Your task to perform on an android device: Search for a custom made wallet on Etsy Image 0: 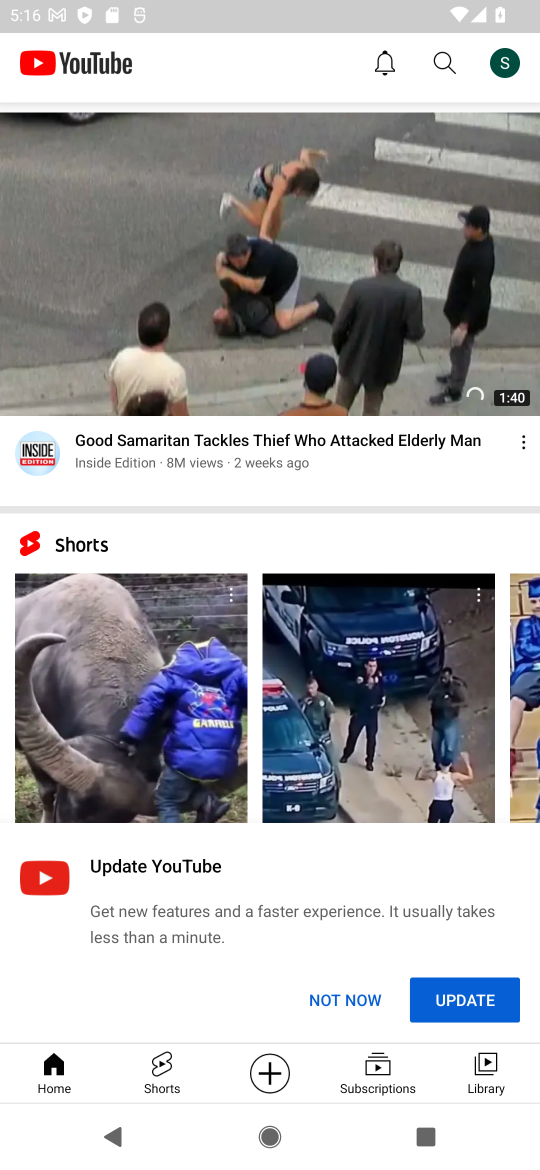
Step 0: press home button
Your task to perform on an android device: Search for a custom made wallet on Etsy Image 1: 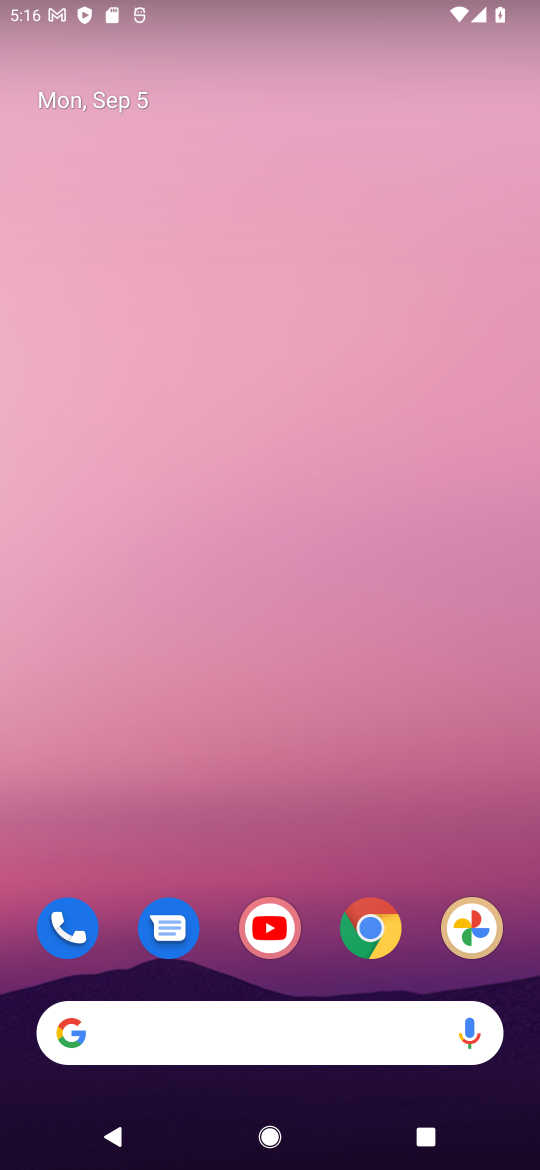
Step 1: click (374, 919)
Your task to perform on an android device: Search for a custom made wallet on Etsy Image 2: 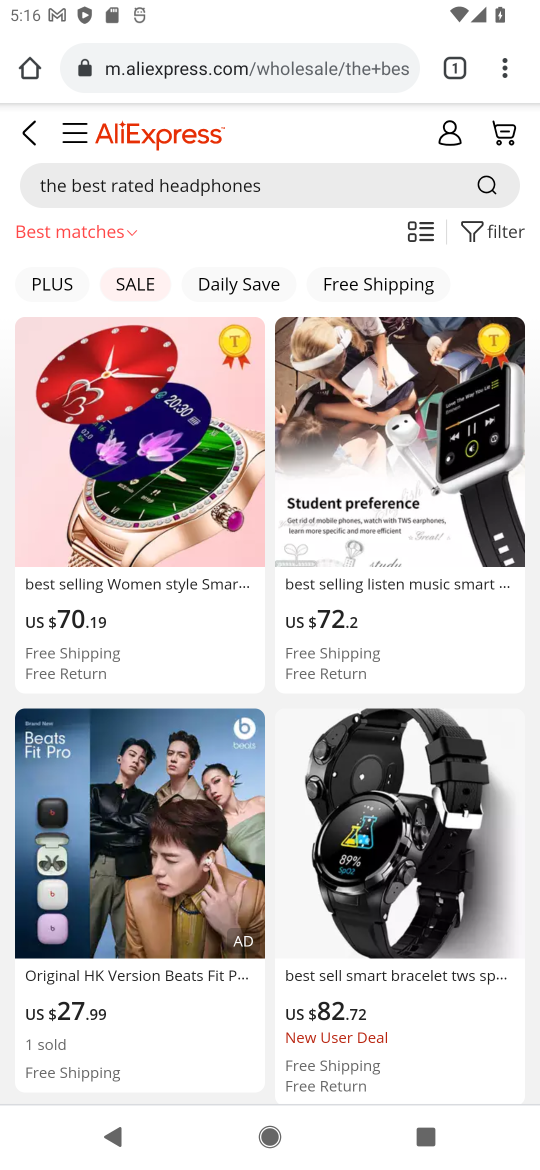
Step 2: click (231, 69)
Your task to perform on an android device: Search for a custom made wallet on Etsy Image 3: 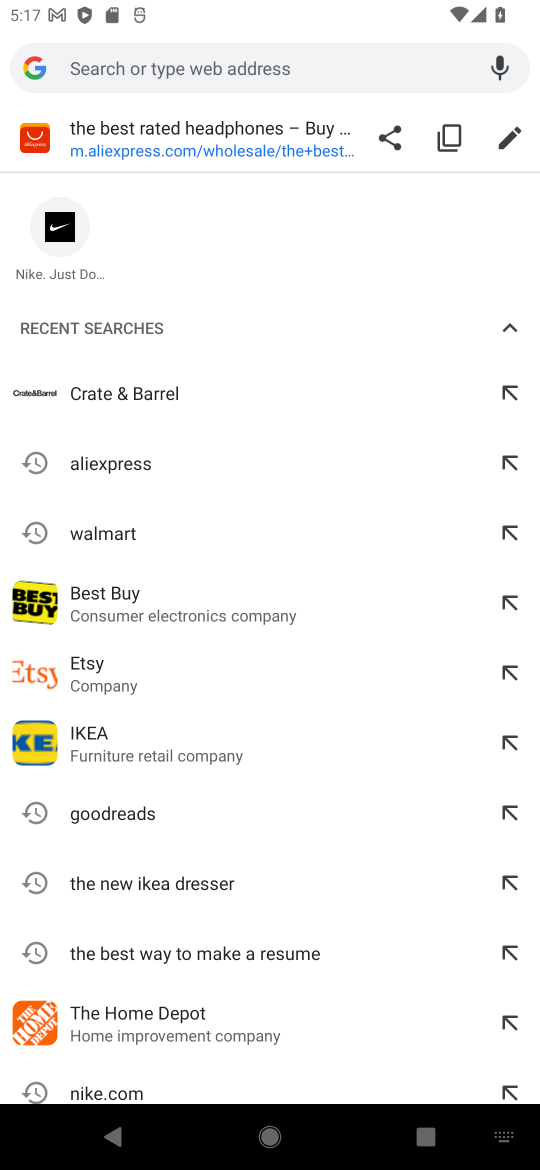
Step 3: type "Etsy"
Your task to perform on an android device: Search for a custom made wallet on Etsy Image 4: 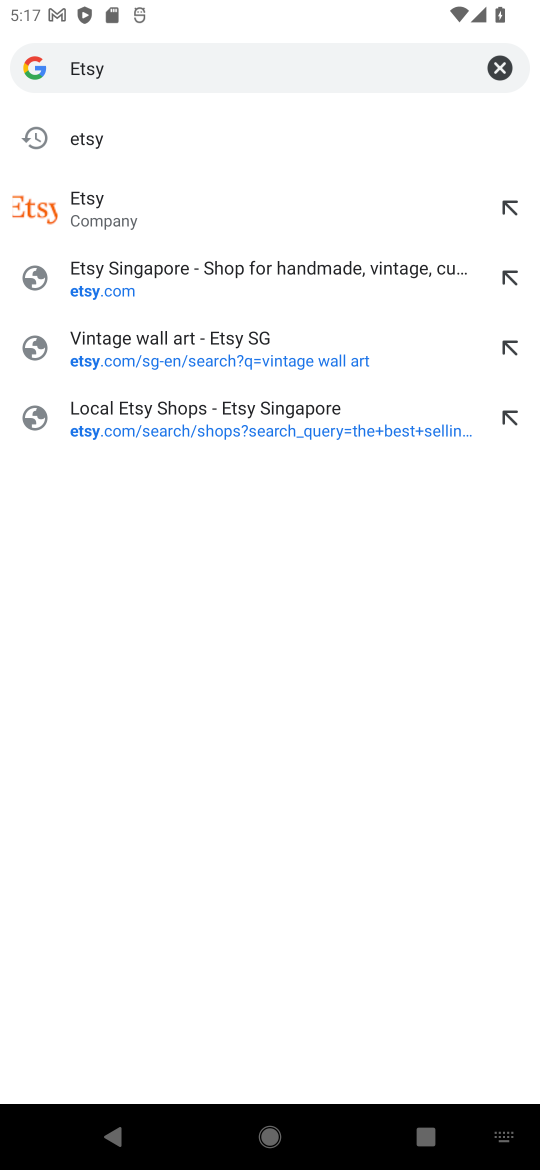
Step 4: click (147, 126)
Your task to perform on an android device: Search for a custom made wallet on Etsy Image 5: 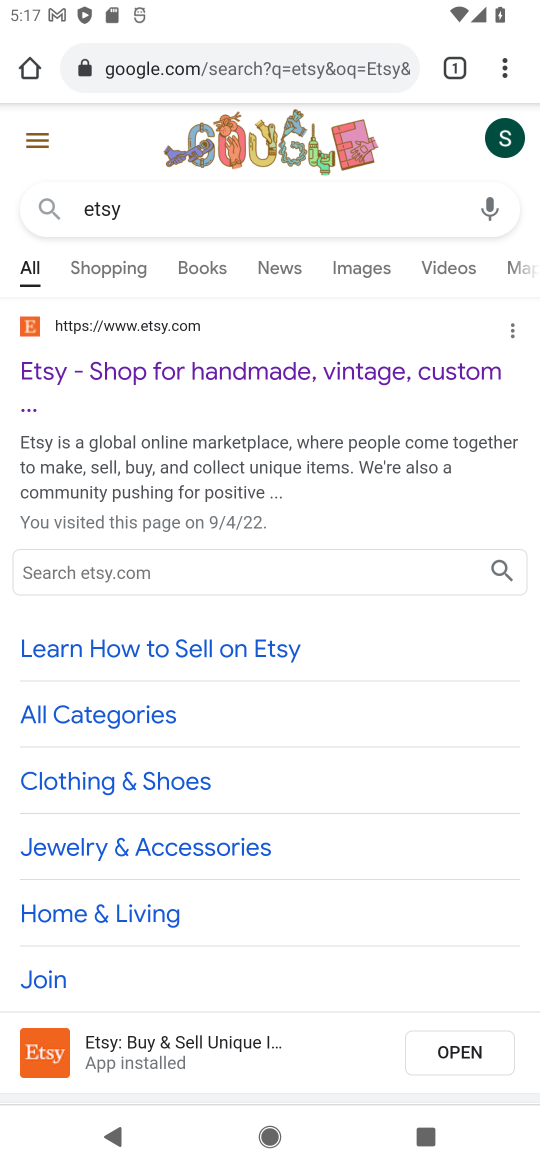
Step 5: click (195, 357)
Your task to perform on an android device: Search for a custom made wallet on Etsy Image 6: 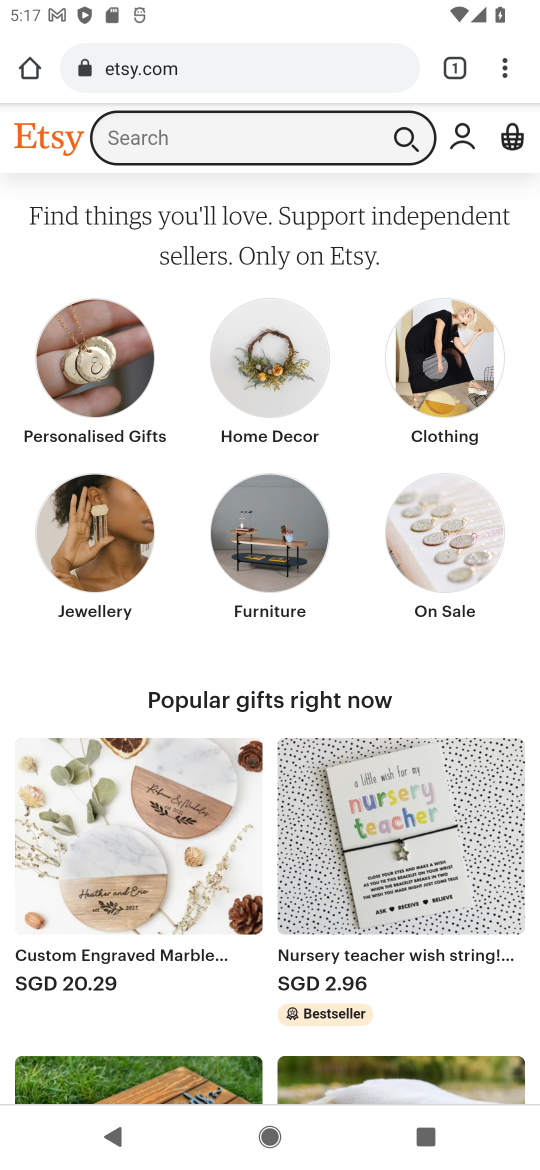
Step 6: click (289, 126)
Your task to perform on an android device: Search for a custom made wallet on Etsy Image 7: 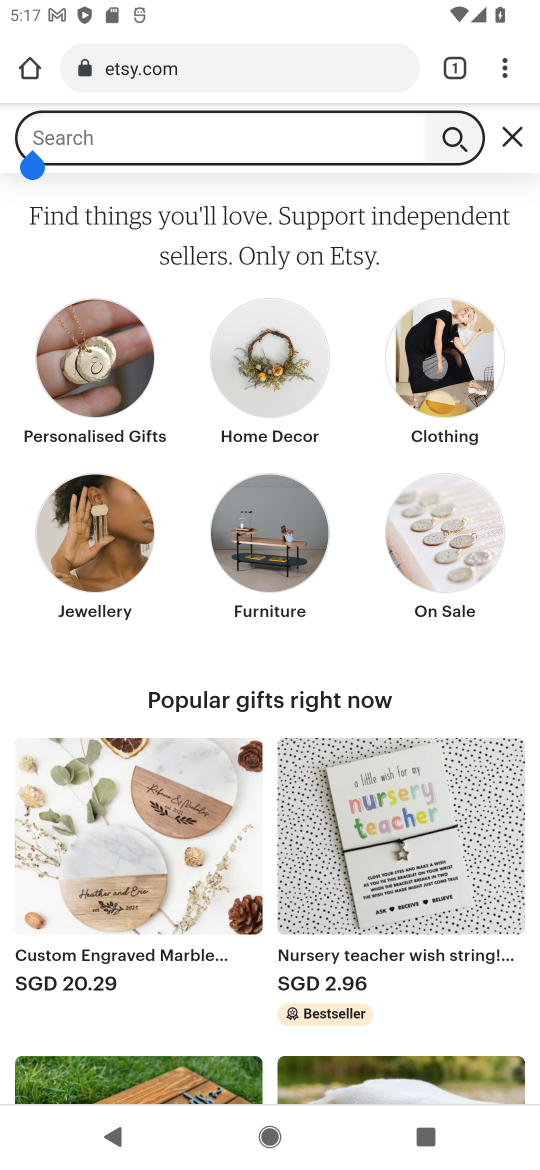
Step 7: type "a custom made wallet"
Your task to perform on an android device: Search for a custom made wallet on Etsy Image 8: 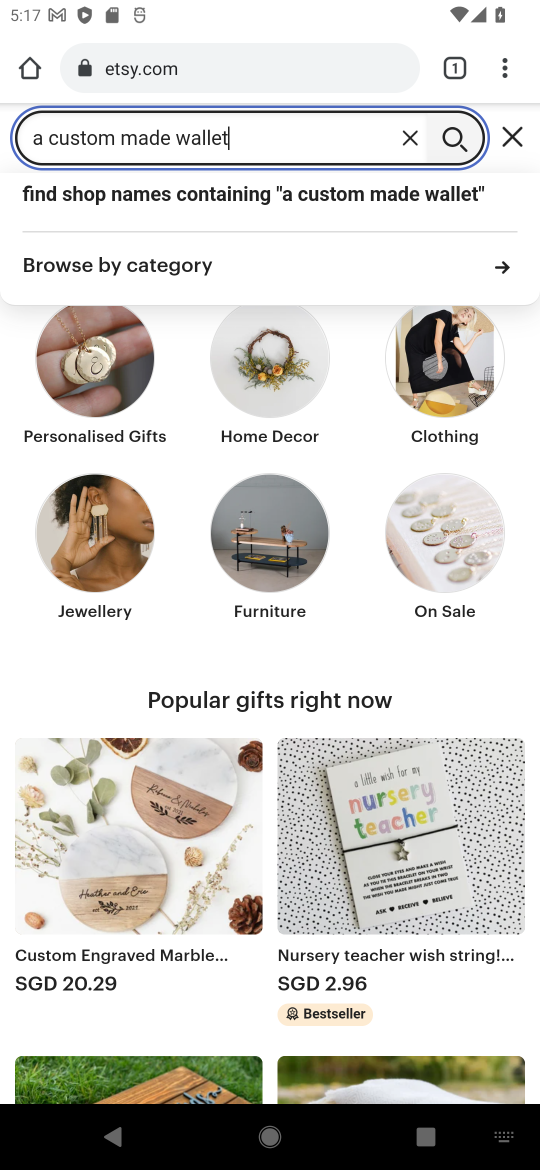
Step 8: click (383, 185)
Your task to perform on an android device: Search for a custom made wallet on Etsy Image 9: 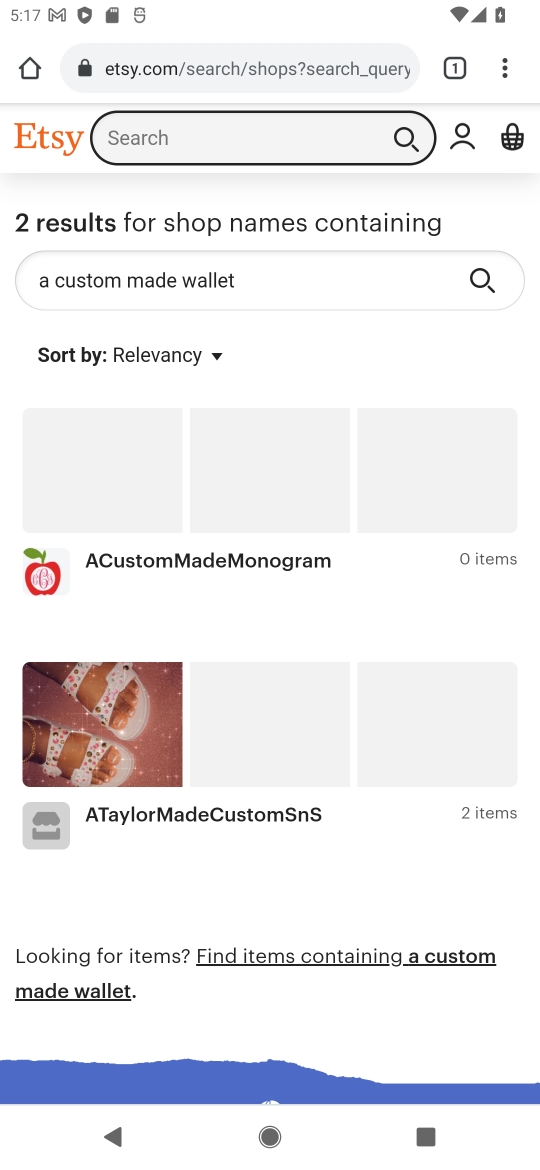
Step 9: task complete